Your task to perform on an android device: turn on showing notifications on the lock screen Image 0: 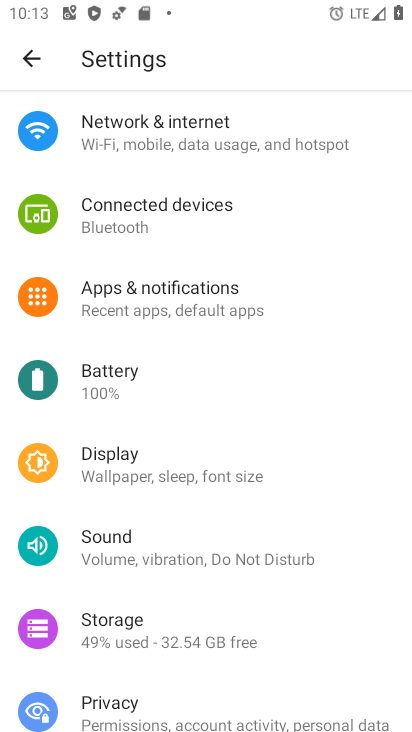
Step 0: click (170, 322)
Your task to perform on an android device: turn on showing notifications on the lock screen Image 1: 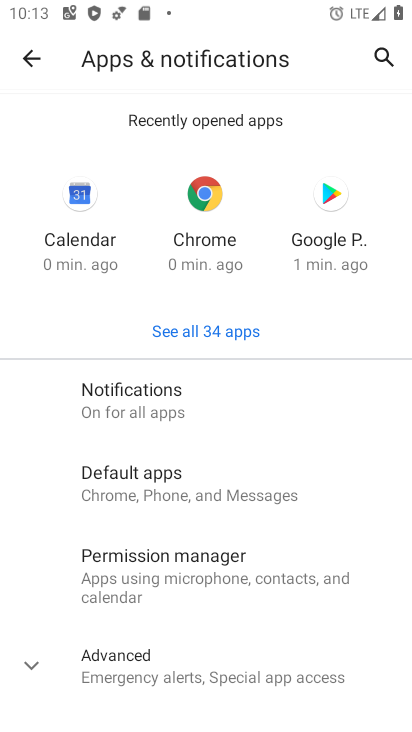
Step 1: click (150, 413)
Your task to perform on an android device: turn on showing notifications on the lock screen Image 2: 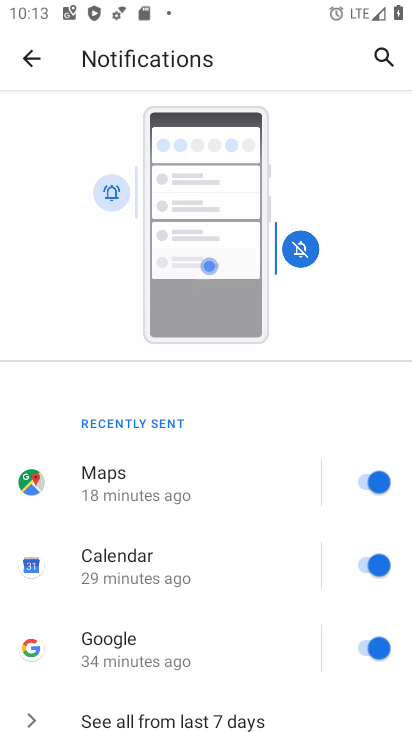
Step 2: drag from (190, 556) to (306, 161)
Your task to perform on an android device: turn on showing notifications on the lock screen Image 3: 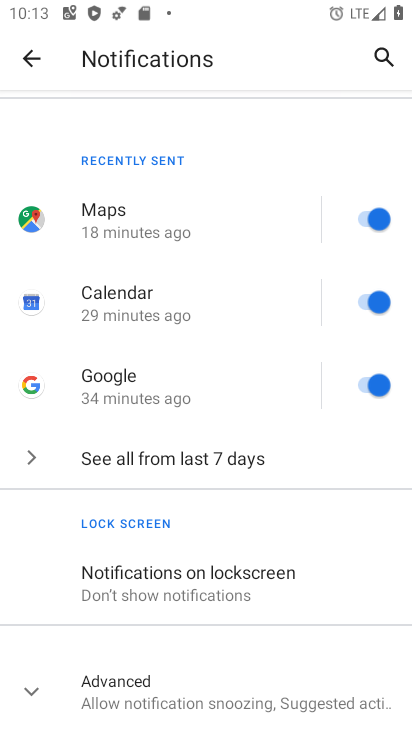
Step 3: click (223, 570)
Your task to perform on an android device: turn on showing notifications on the lock screen Image 4: 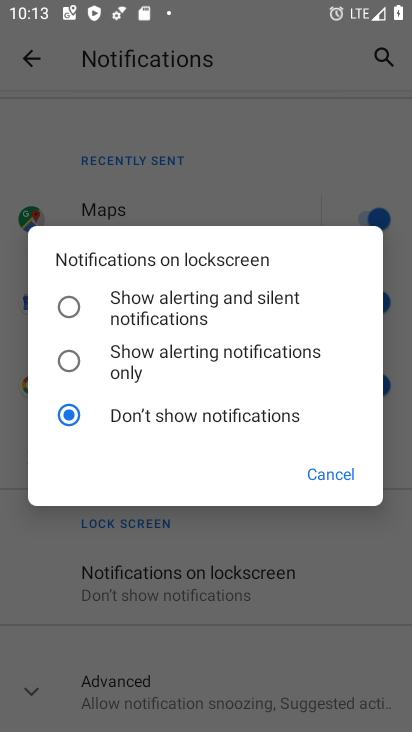
Step 4: click (252, 364)
Your task to perform on an android device: turn on showing notifications on the lock screen Image 5: 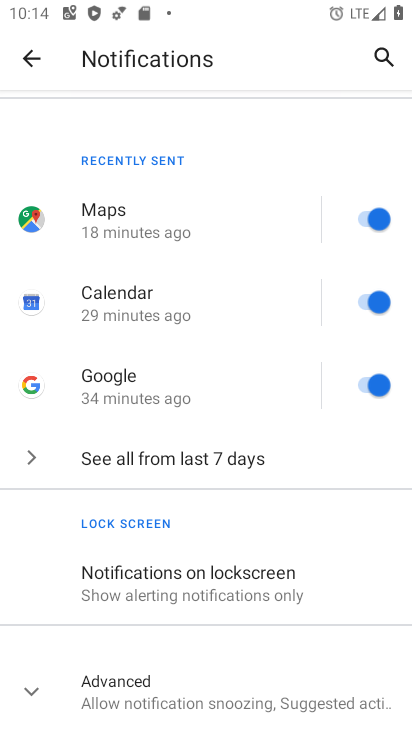
Step 5: click (199, 576)
Your task to perform on an android device: turn on showing notifications on the lock screen Image 6: 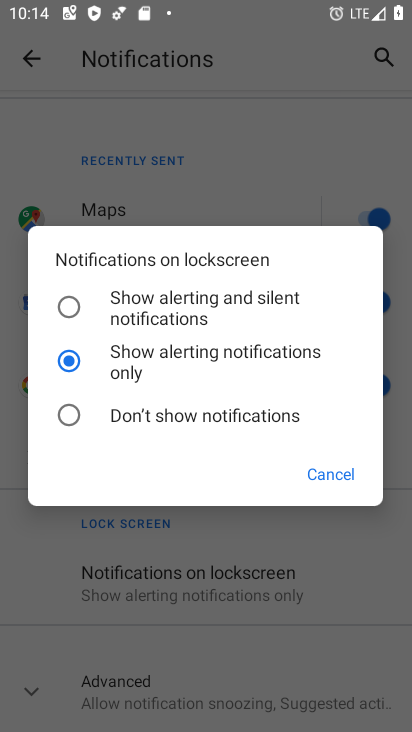
Step 6: task complete